Your task to perform on an android device: turn off airplane mode Image 0: 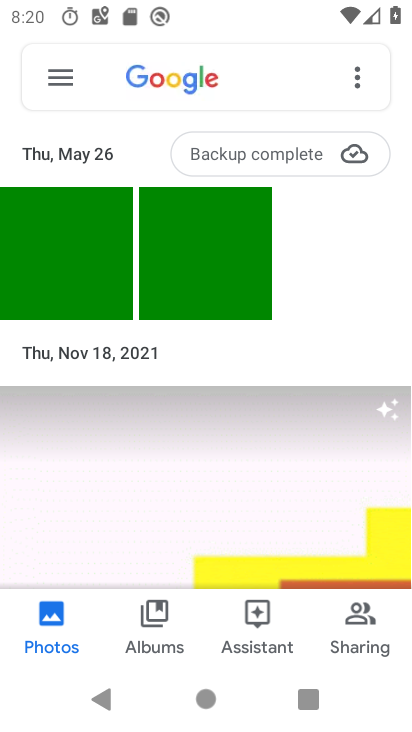
Step 0: press home button
Your task to perform on an android device: turn off airplane mode Image 1: 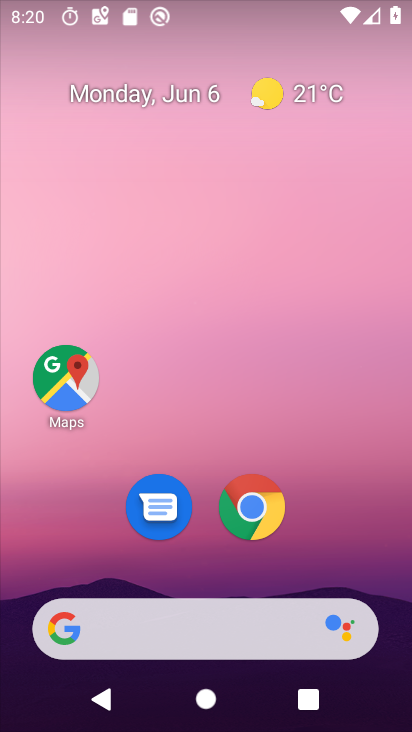
Step 1: task complete